Your task to perform on an android device: Search for floor lamps on article.com Image 0: 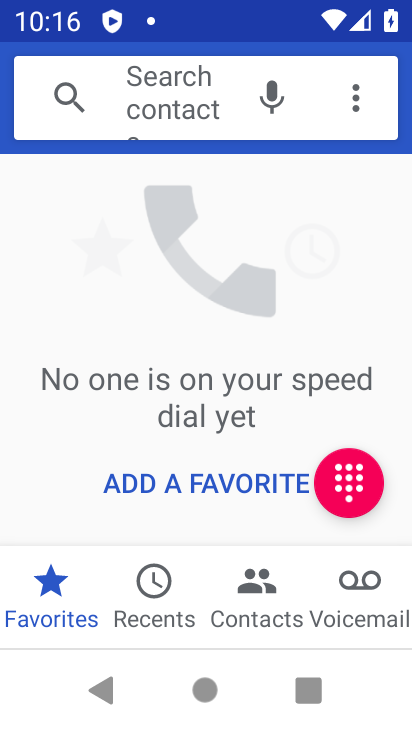
Step 0: press home button
Your task to perform on an android device: Search for floor lamps on article.com Image 1: 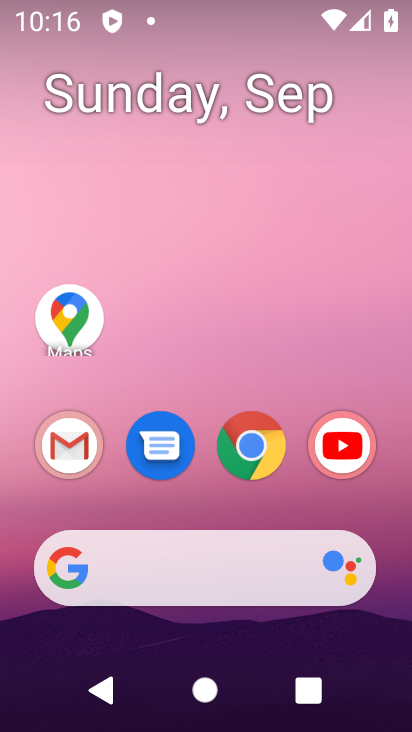
Step 1: drag from (191, 511) to (209, 88)
Your task to perform on an android device: Search for floor lamps on article.com Image 2: 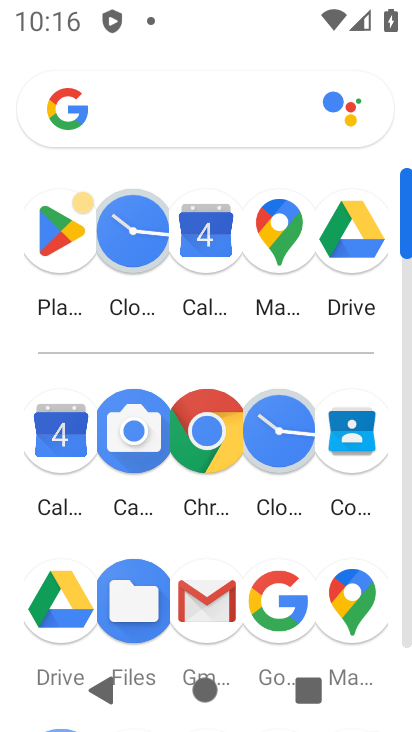
Step 2: click (223, 450)
Your task to perform on an android device: Search for floor lamps on article.com Image 3: 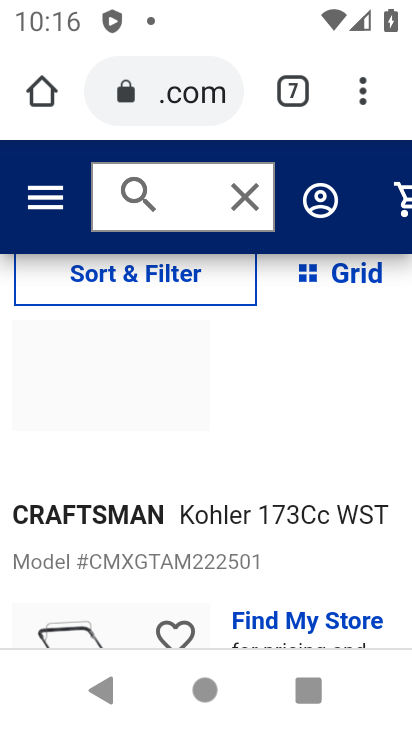
Step 3: click (179, 104)
Your task to perform on an android device: Search for floor lamps on article.com Image 4: 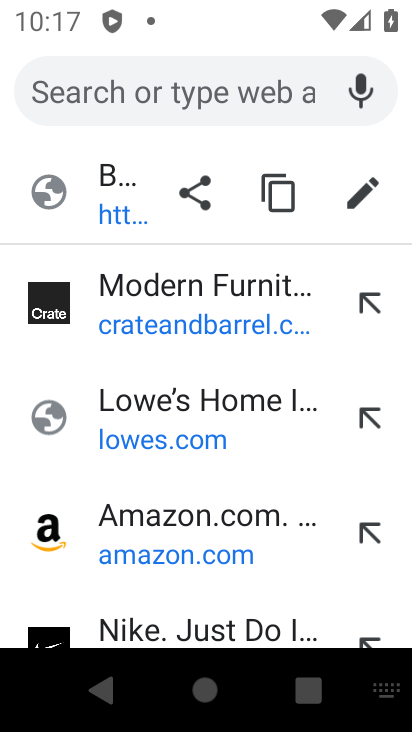
Step 4: press enter
Your task to perform on an android device: Search for floor lamps on article.com Image 5: 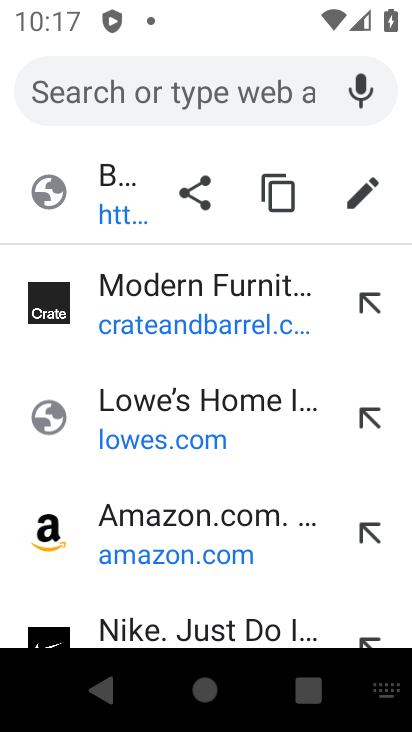
Step 5: type "article.com"
Your task to perform on an android device: Search for floor lamps on article.com Image 6: 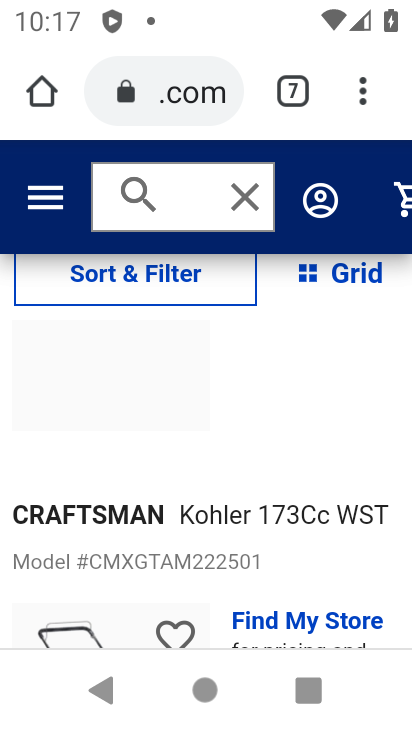
Step 6: click (179, 104)
Your task to perform on an android device: Search for floor lamps on article.com Image 7: 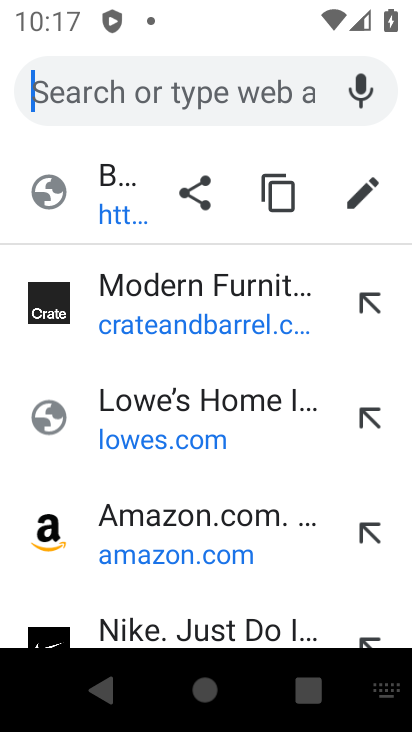
Step 7: type "article.com"
Your task to perform on an android device: Search for floor lamps on article.com Image 8: 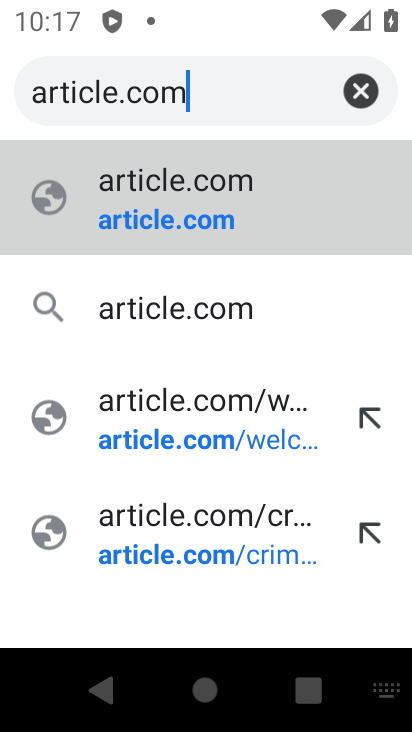
Step 8: press enter
Your task to perform on an android device: Search for floor lamps on article.com Image 9: 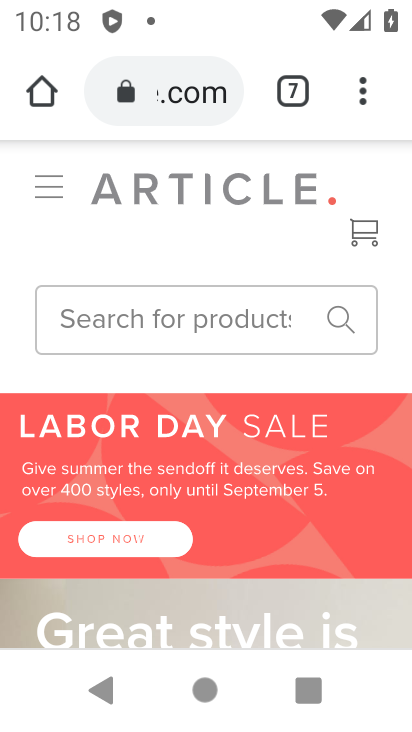
Step 9: type " floor lamps"
Your task to perform on an android device: Search for floor lamps on article.com Image 10: 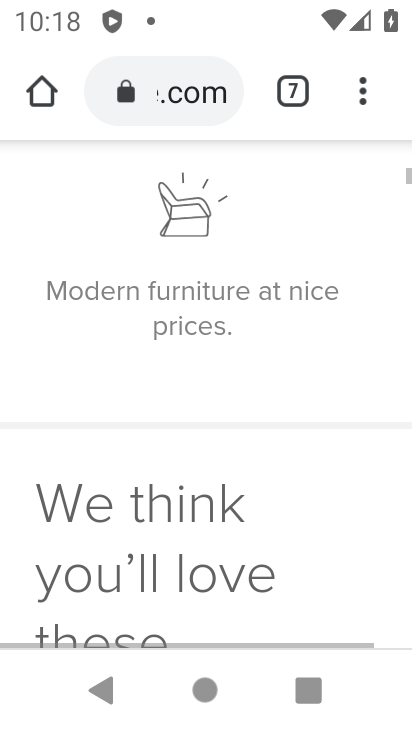
Step 10: press enter
Your task to perform on an android device: Search for floor lamps on article.com Image 11: 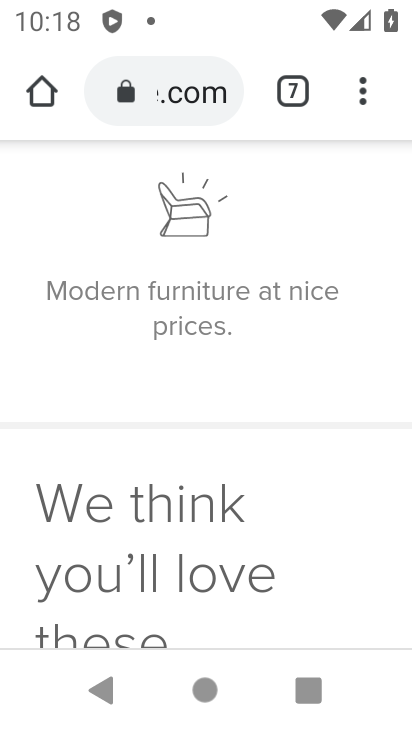
Step 11: drag from (260, 524) to (281, 207)
Your task to perform on an android device: Search for floor lamps on article.com Image 12: 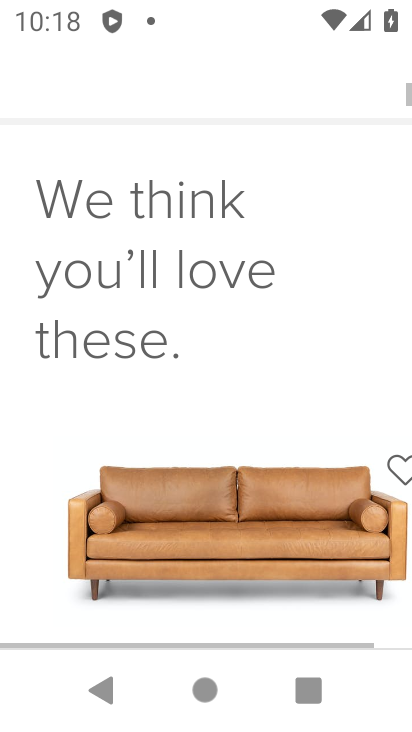
Step 12: drag from (283, 240) to (307, 140)
Your task to perform on an android device: Search for floor lamps on article.com Image 13: 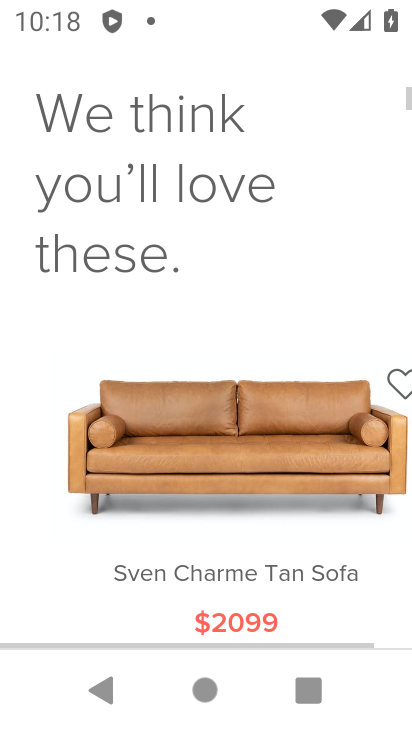
Step 13: drag from (285, 270) to (303, 156)
Your task to perform on an android device: Search for floor lamps on article.com Image 14: 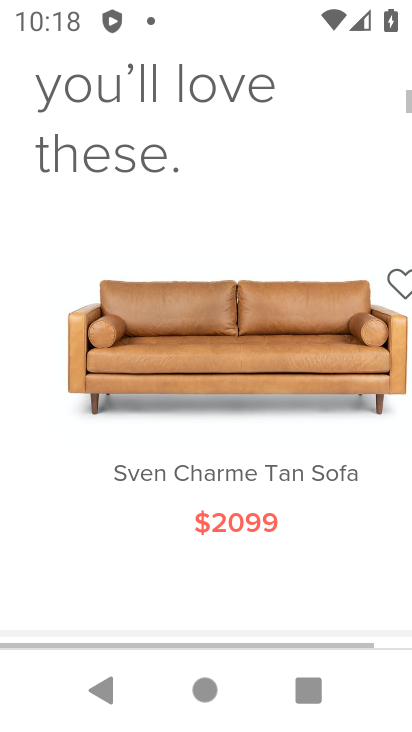
Step 14: drag from (283, 305) to (306, 122)
Your task to perform on an android device: Search for floor lamps on article.com Image 15: 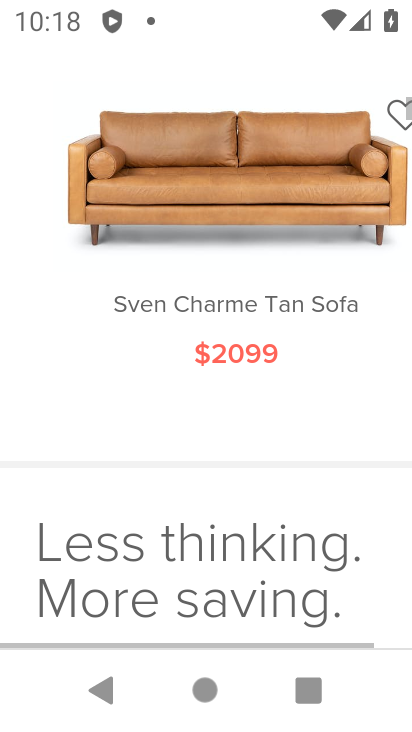
Step 15: drag from (260, 375) to (297, 108)
Your task to perform on an android device: Search for floor lamps on article.com Image 16: 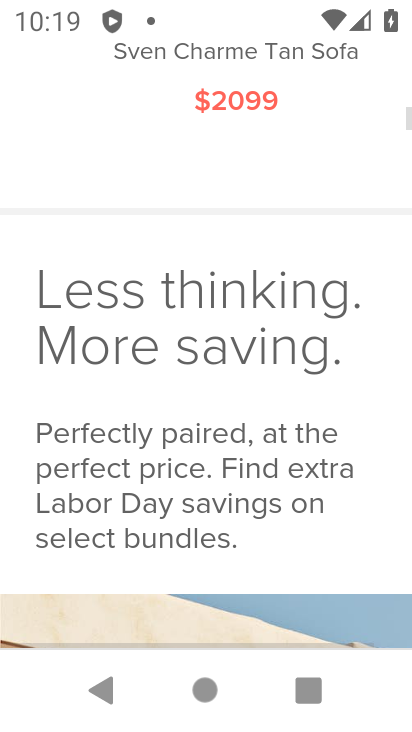
Step 16: drag from (206, 651) to (296, 154)
Your task to perform on an android device: Search for floor lamps on article.com Image 17: 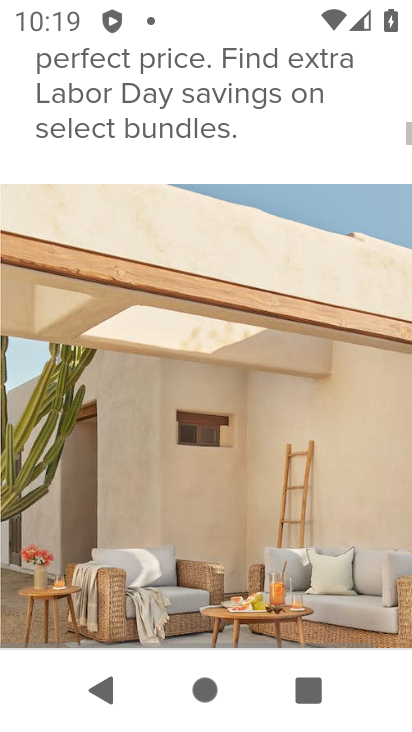
Step 17: drag from (249, 346) to (290, 177)
Your task to perform on an android device: Search for floor lamps on article.com Image 18: 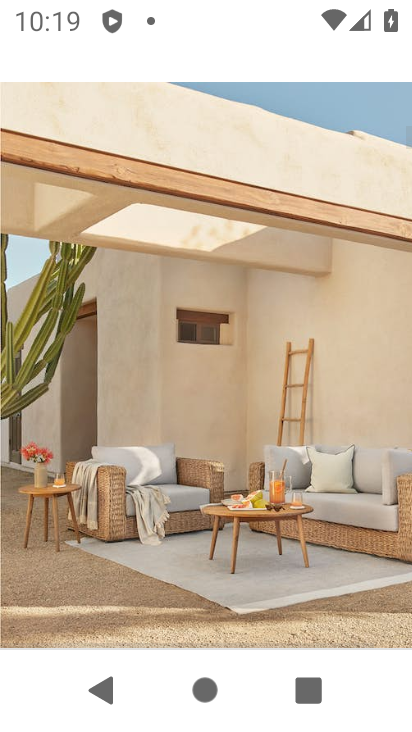
Step 18: drag from (286, 552) to (313, 706)
Your task to perform on an android device: Search for floor lamps on article.com Image 19: 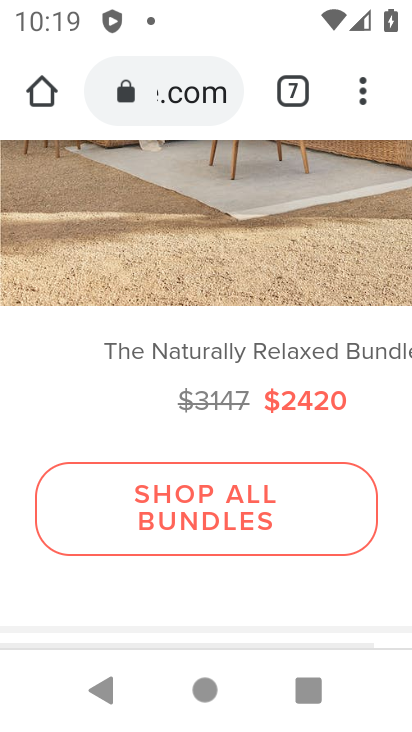
Step 19: drag from (265, 243) to (295, 647)
Your task to perform on an android device: Search for floor lamps on article.com Image 20: 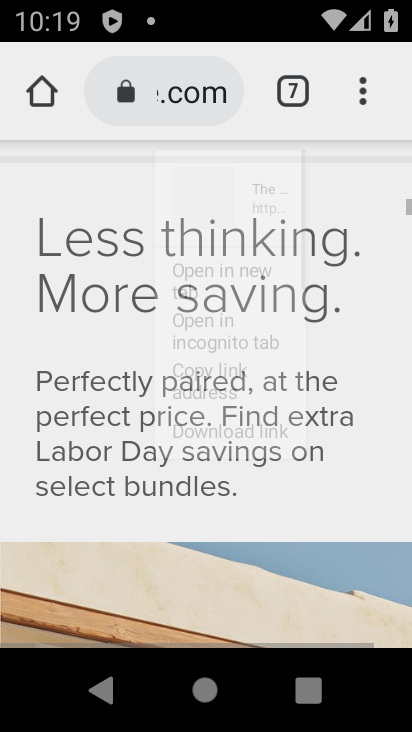
Step 20: drag from (291, 244) to (305, 609)
Your task to perform on an android device: Search for floor lamps on article.com Image 21: 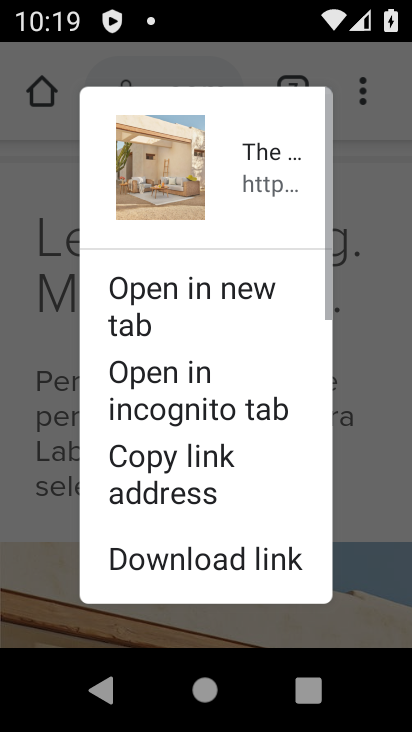
Step 21: click (377, 314)
Your task to perform on an android device: Search for floor lamps on article.com Image 22: 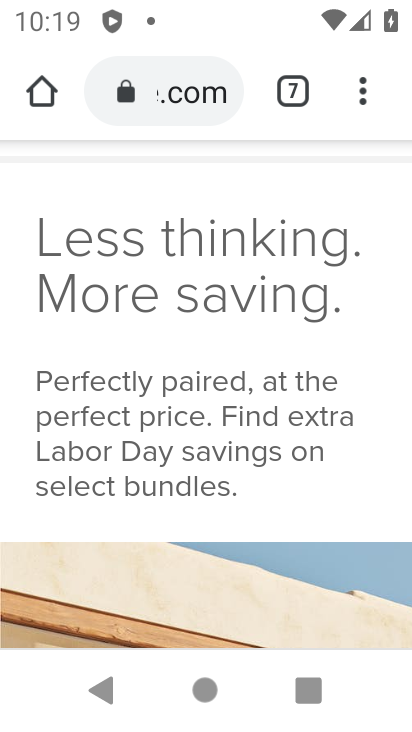
Step 22: drag from (320, 528) to (326, 584)
Your task to perform on an android device: Search for floor lamps on article.com Image 23: 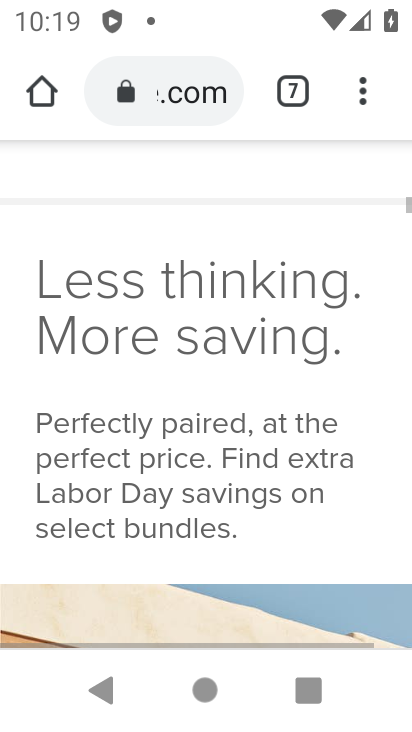
Step 23: drag from (294, 191) to (301, 563)
Your task to perform on an android device: Search for floor lamps on article.com Image 24: 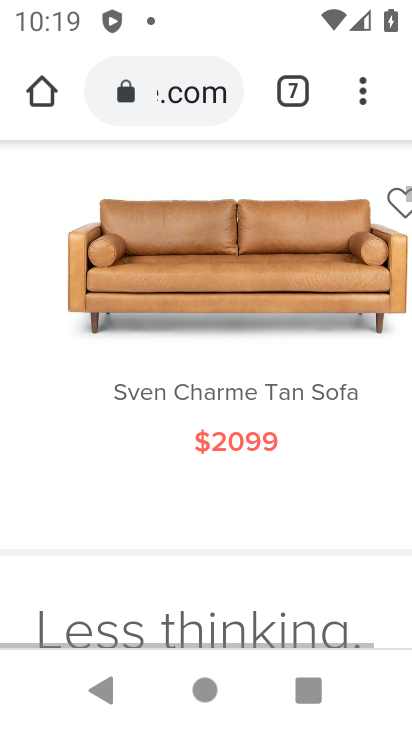
Step 24: click (298, 597)
Your task to perform on an android device: Search for floor lamps on article.com Image 25: 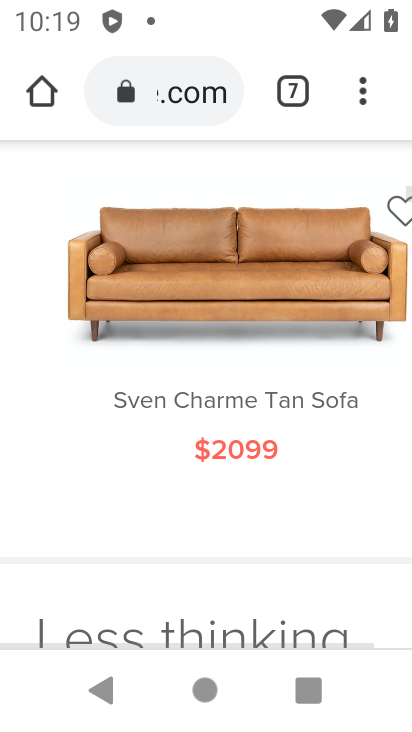
Step 25: click (321, 616)
Your task to perform on an android device: Search for floor lamps on article.com Image 26: 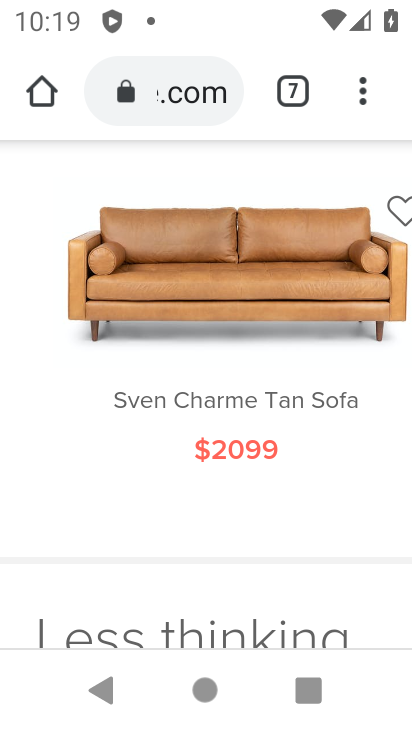
Step 26: drag from (307, 267) to (299, 618)
Your task to perform on an android device: Search for floor lamps on article.com Image 27: 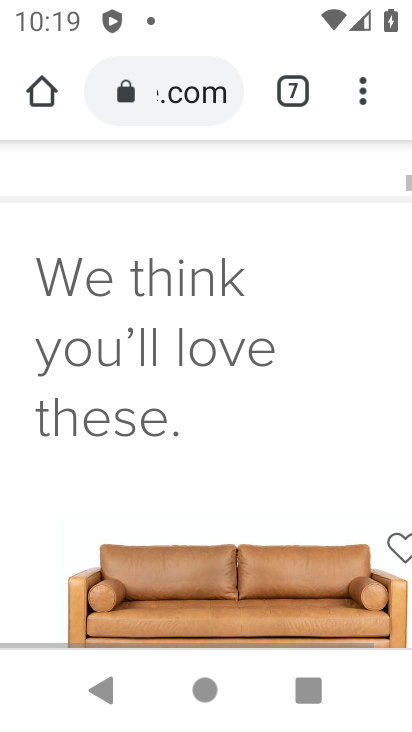
Step 27: drag from (249, 222) to (261, 604)
Your task to perform on an android device: Search for floor lamps on article.com Image 28: 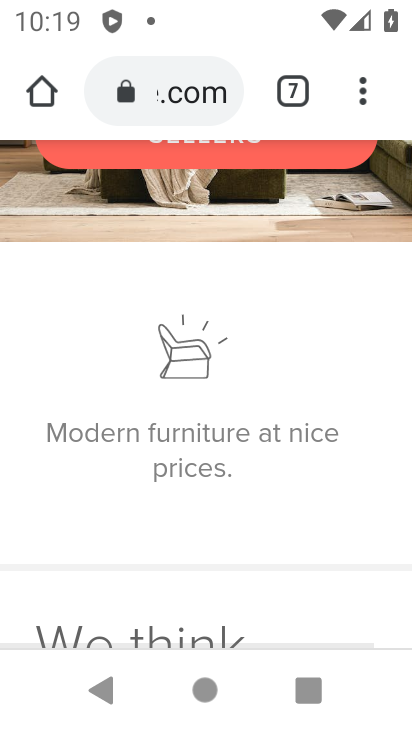
Step 28: drag from (245, 249) to (232, 598)
Your task to perform on an android device: Search for floor lamps on article.com Image 29: 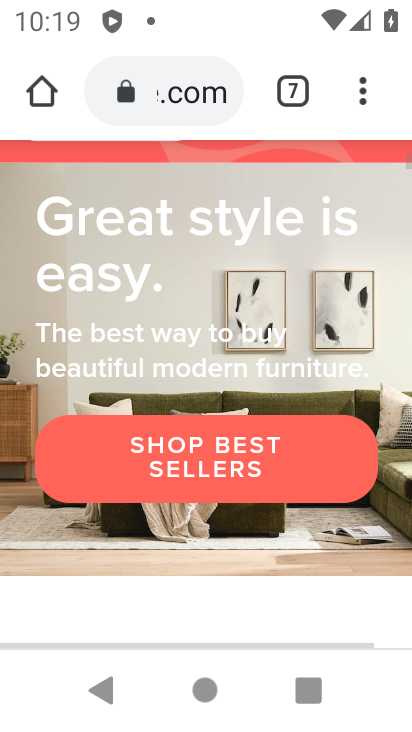
Step 29: drag from (249, 281) to (277, 594)
Your task to perform on an android device: Search for floor lamps on article.com Image 30: 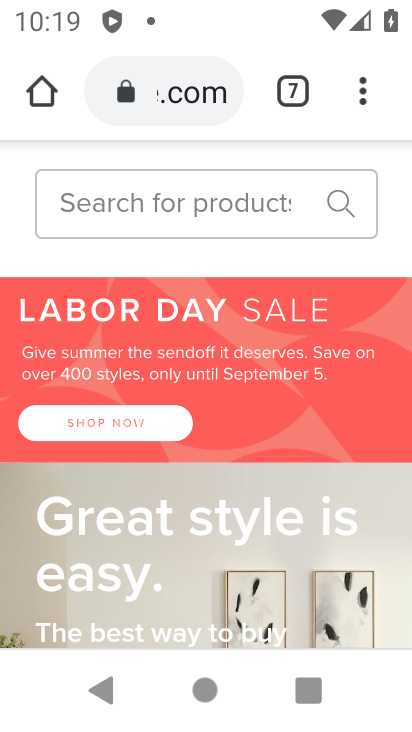
Step 30: click (168, 211)
Your task to perform on an android device: Search for floor lamps on article.com Image 31: 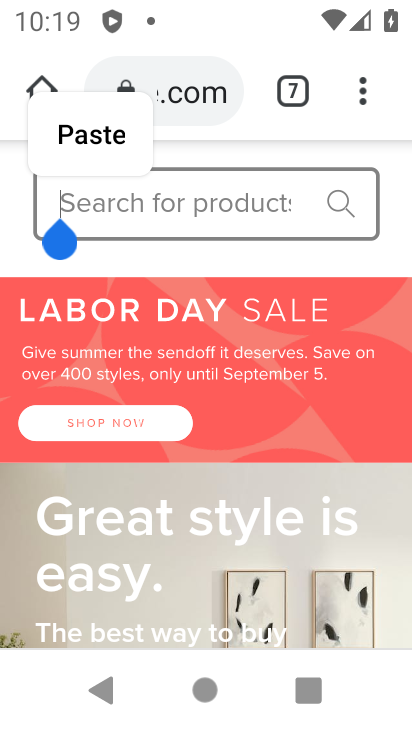
Step 31: click (117, 128)
Your task to perform on an android device: Search for floor lamps on article.com Image 32: 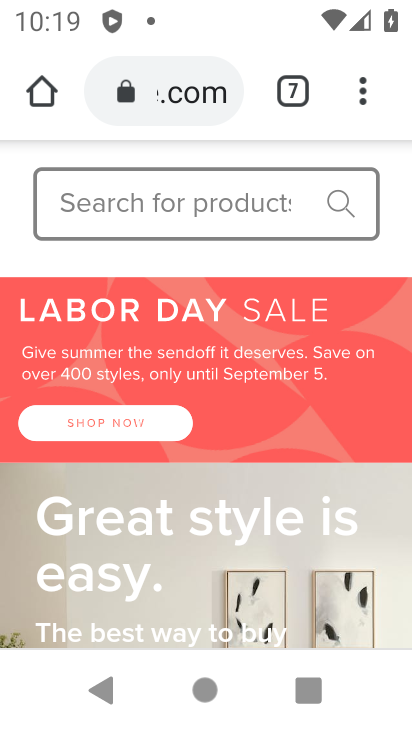
Step 32: type "floor lamps"
Your task to perform on an android device: Search for floor lamps on article.com Image 33: 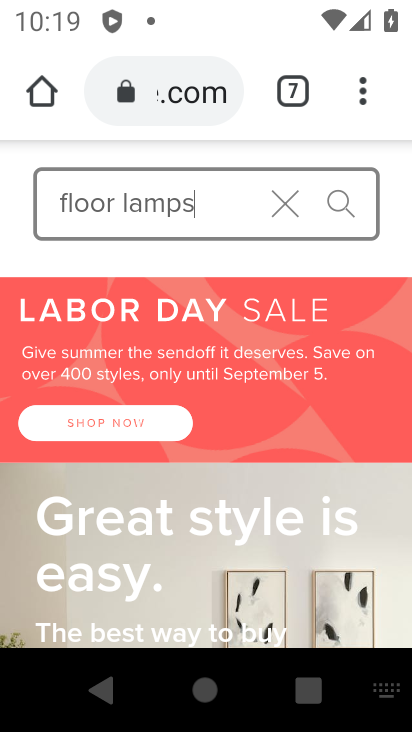
Step 33: press enter
Your task to perform on an android device: Search for floor lamps on article.com Image 34: 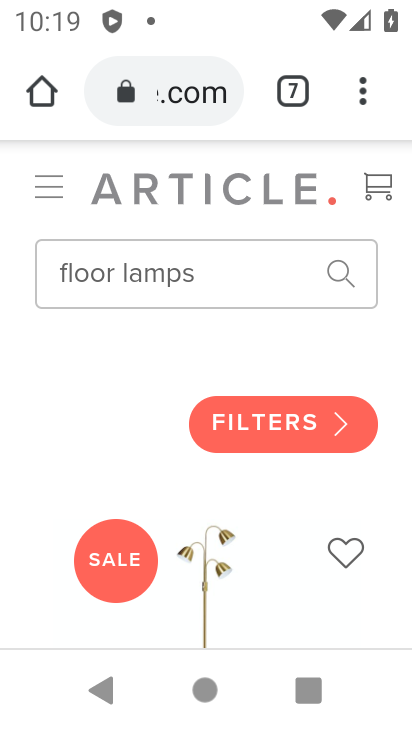
Step 34: drag from (301, 589) to (309, 207)
Your task to perform on an android device: Search for floor lamps on article.com Image 35: 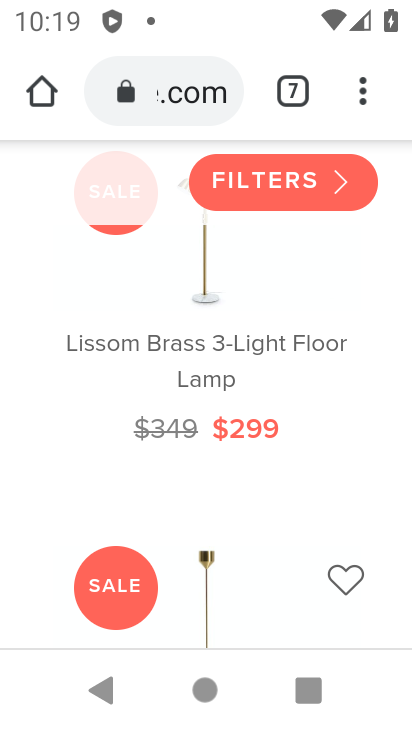
Step 35: drag from (307, 373) to (339, 572)
Your task to perform on an android device: Search for floor lamps on article.com Image 36: 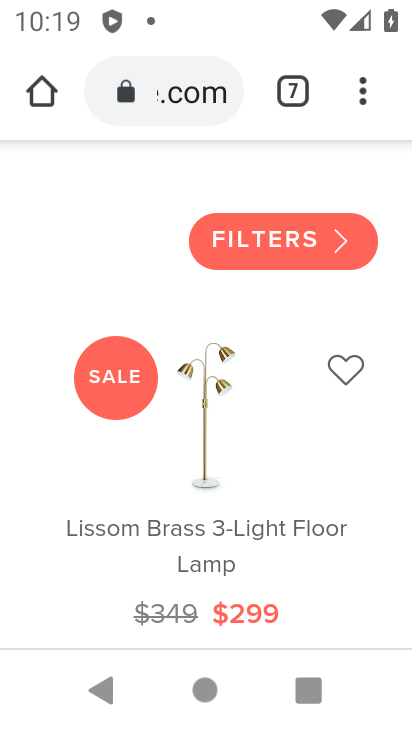
Step 36: click (352, 194)
Your task to perform on an android device: Search for floor lamps on article.com Image 37: 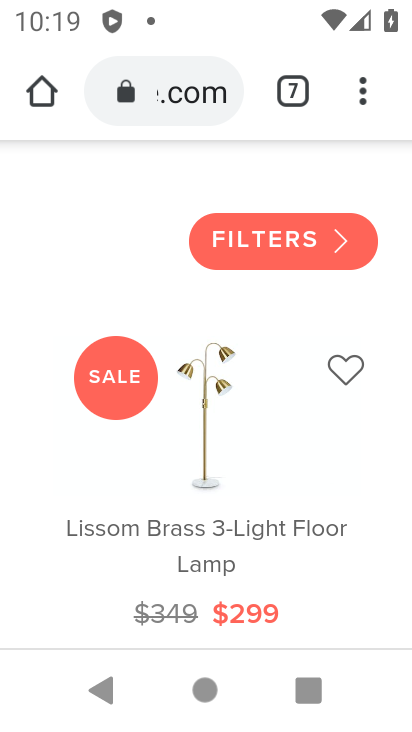
Step 37: task complete